Your task to perform on an android device: check android version Image 0: 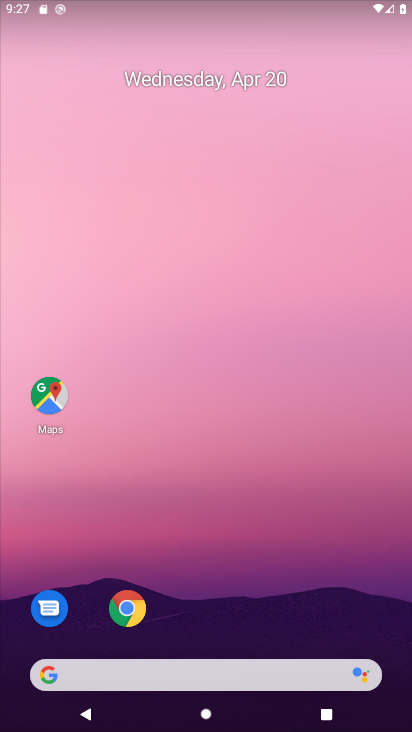
Step 0: drag from (232, 638) to (288, 132)
Your task to perform on an android device: check android version Image 1: 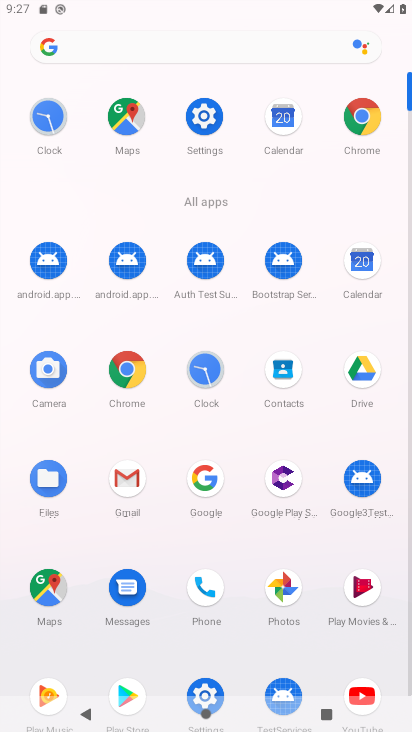
Step 1: click (215, 120)
Your task to perform on an android device: check android version Image 2: 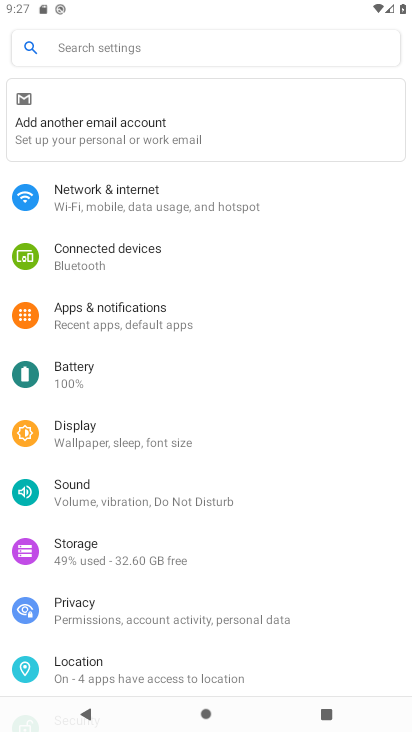
Step 2: drag from (96, 588) to (126, 41)
Your task to perform on an android device: check android version Image 3: 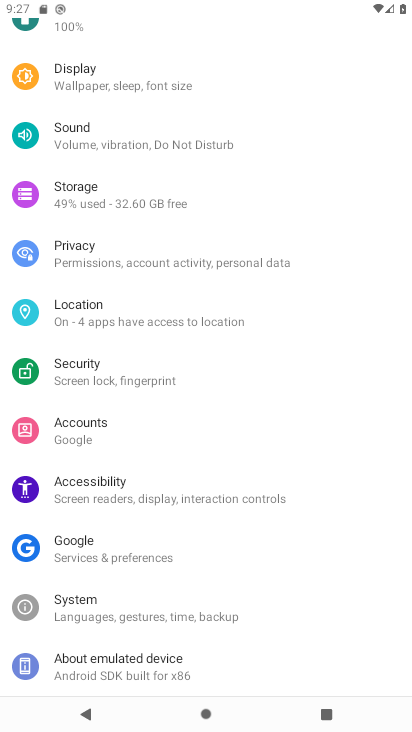
Step 3: drag from (99, 622) to (172, 223)
Your task to perform on an android device: check android version Image 4: 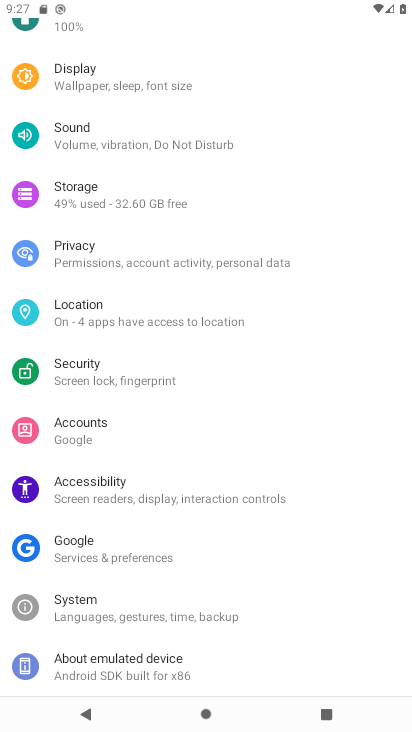
Step 4: click (127, 662)
Your task to perform on an android device: check android version Image 5: 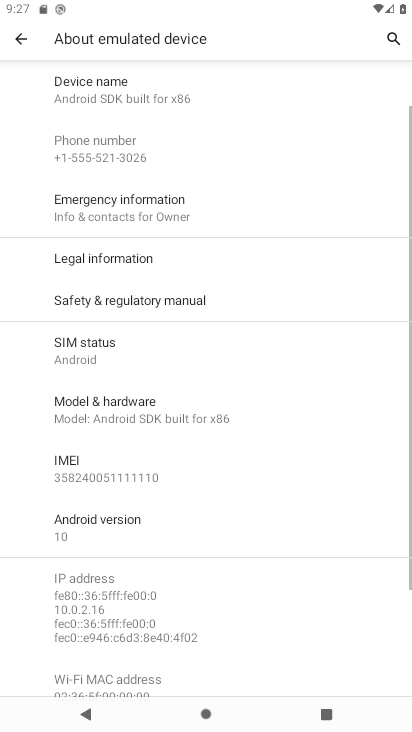
Step 5: click (88, 527)
Your task to perform on an android device: check android version Image 6: 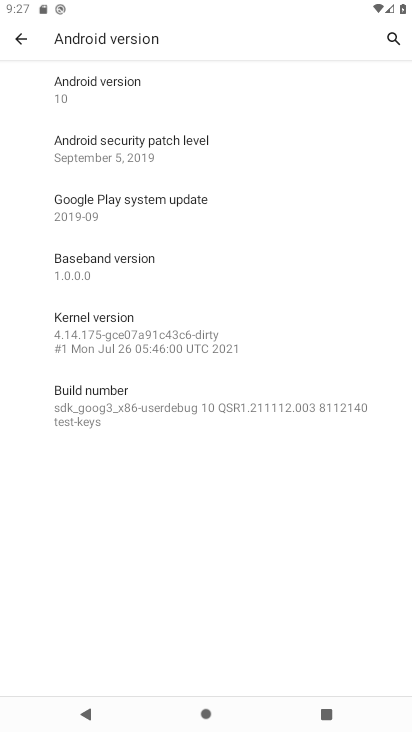
Step 6: task complete